Your task to perform on an android device: Search for vegetarian restaurants on Maps Image 0: 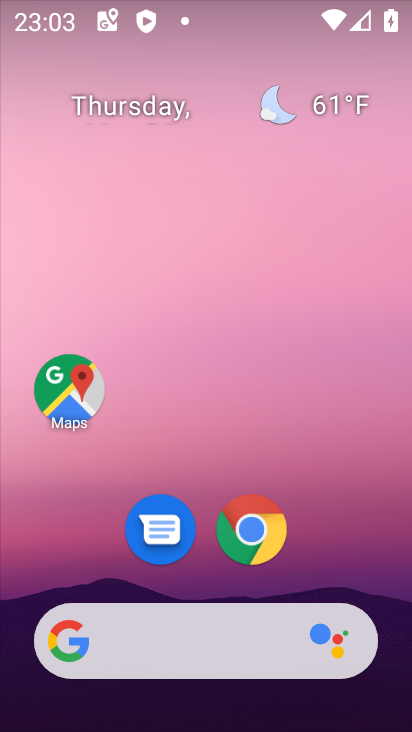
Step 0: click (73, 382)
Your task to perform on an android device: Search for vegetarian restaurants on Maps Image 1: 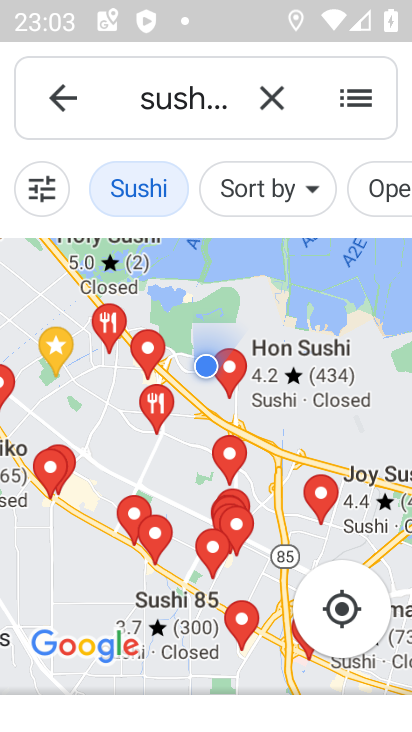
Step 1: click (213, 94)
Your task to perform on an android device: Search for vegetarian restaurants on Maps Image 2: 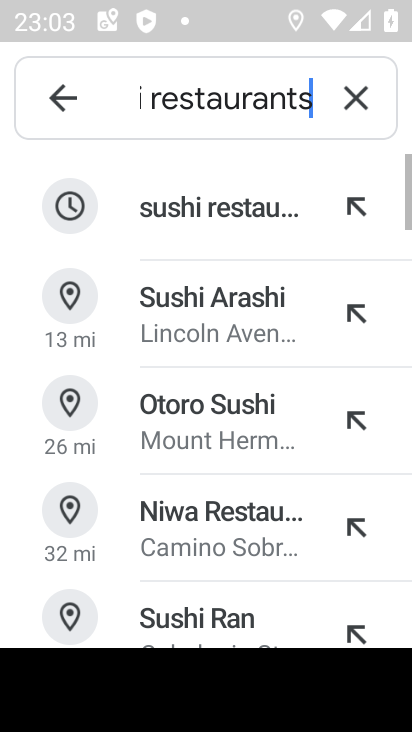
Step 2: click (348, 95)
Your task to perform on an android device: Search for vegetarian restaurants on Maps Image 3: 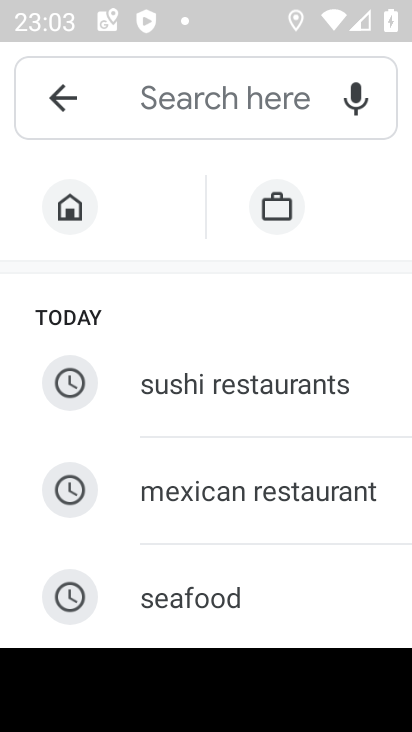
Step 3: drag from (211, 572) to (219, 225)
Your task to perform on an android device: Search for vegetarian restaurants on Maps Image 4: 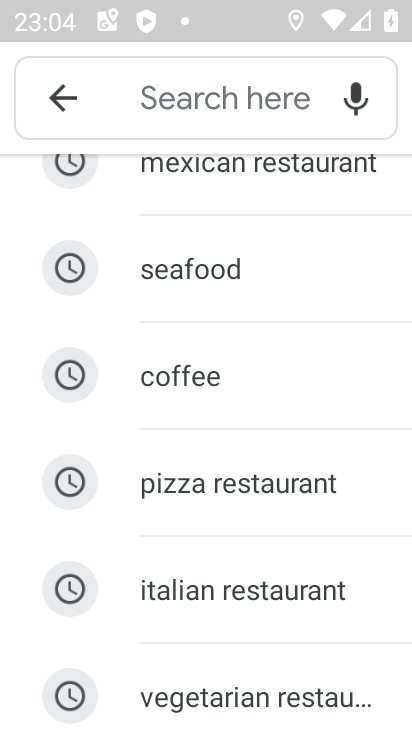
Step 4: click (207, 681)
Your task to perform on an android device: Search for vegetarian restaurants on Maps Image 5: 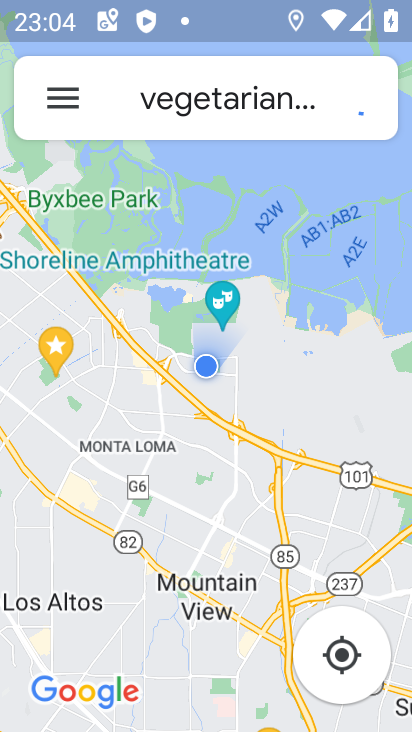
Step 5: task complete